Your task to perform on an android device: add a contact Image 0: 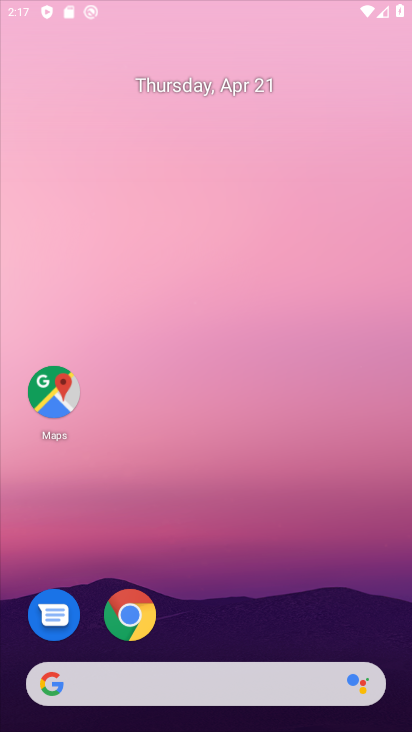
Step 0: click (292, 51)
Your task to perform on an android device: add a contact Image 1: 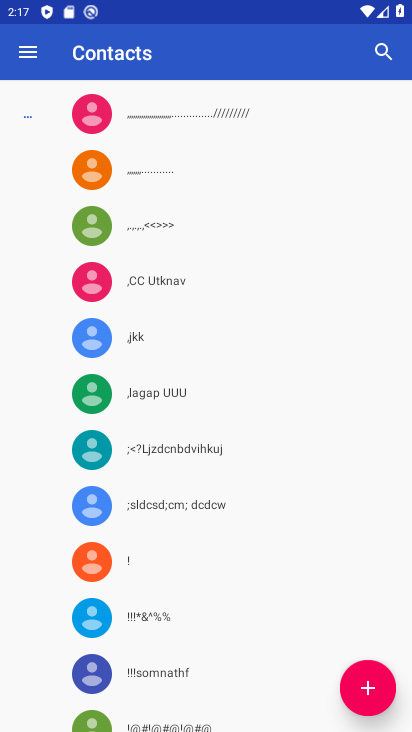
Step 1: press back button
Your task to perform on an android device: add a contact Image 2: 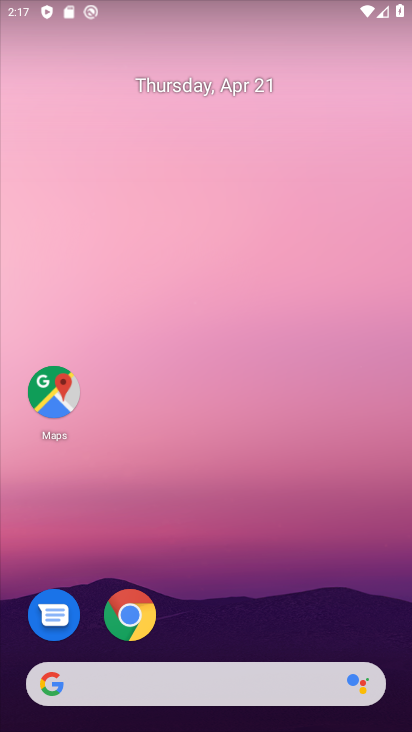
Step 2: drag from (235, 486) to (268, 3)
Your task to perform on an android device: add a contact Image 3: 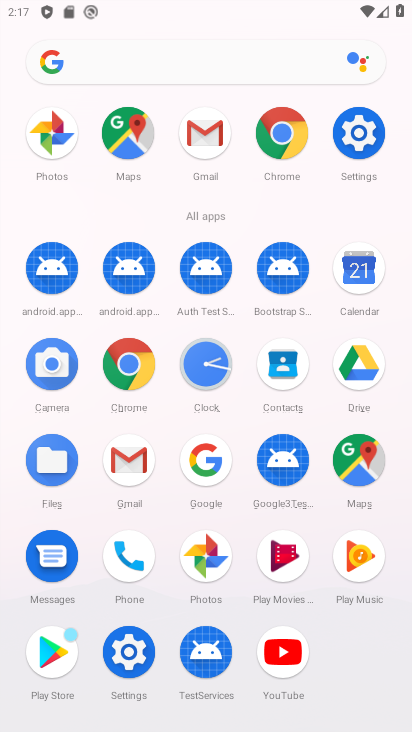
Step 3: click (287, 366)
Your task to perform on an android device: add a contact Image 4: 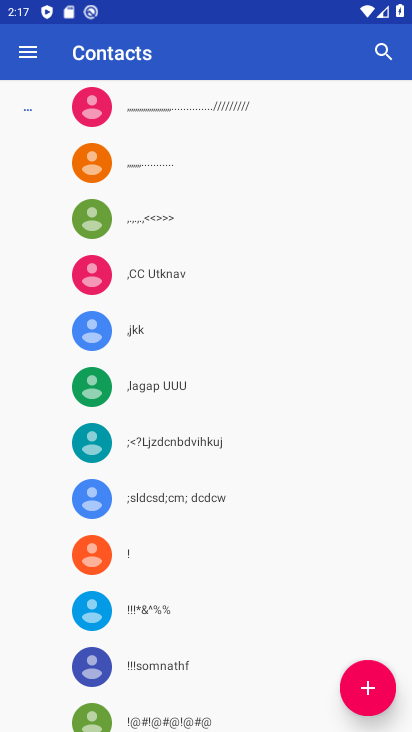
Step 4: click (366, 685)
Your task to perform on an android device: add a contact Image 5: 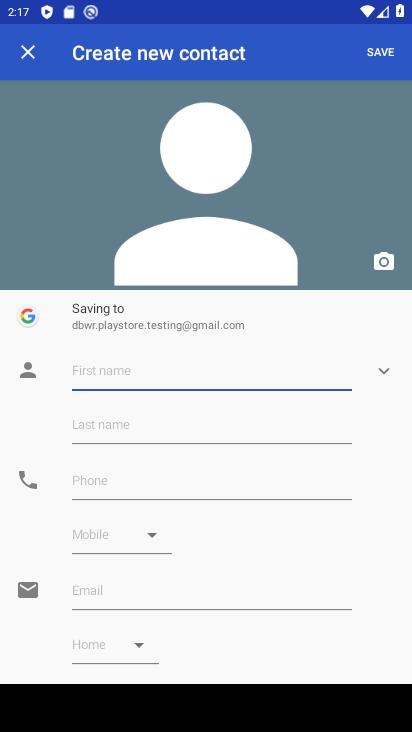
Step 5: click (88, 368)
Your task to perform on an android device: add a contact Image 6: 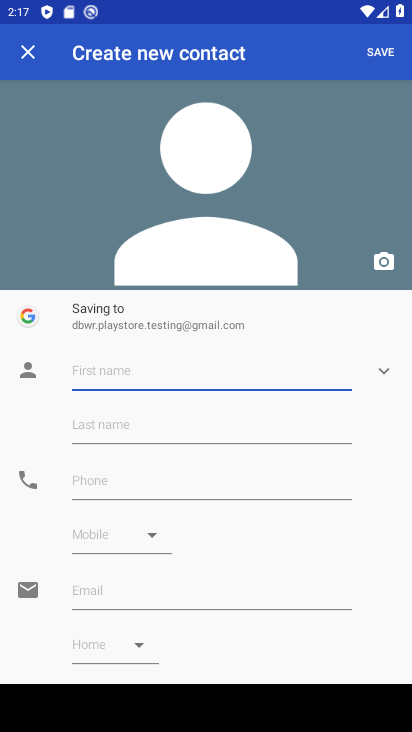
Step 6: type "vfb"
Your task to perform on an android device: add a contact Image 7: 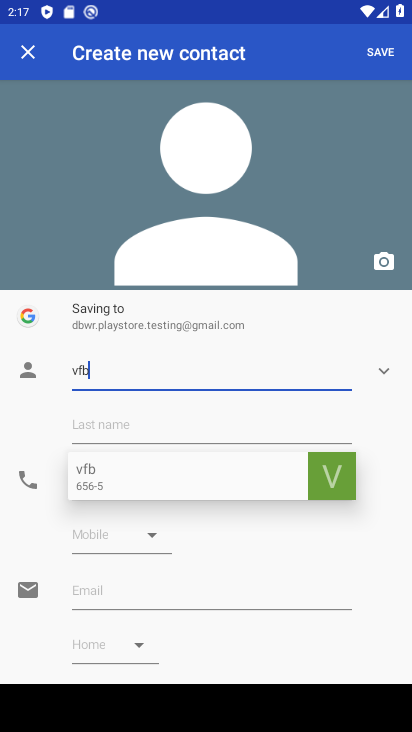
Step 7: click (92, 487)
Your task to perform on an android device: add a contact Image 8: 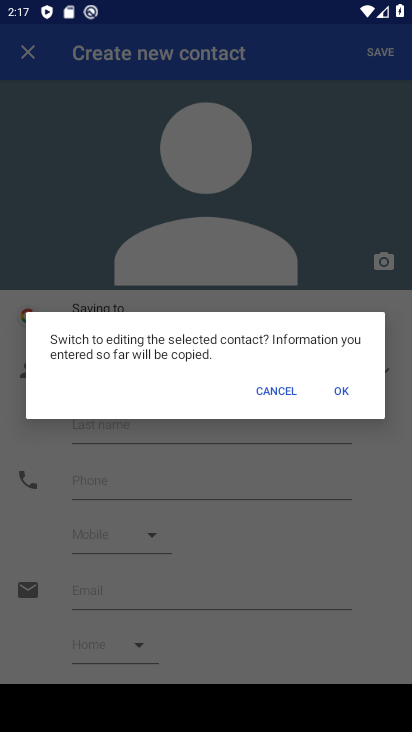
Step 8: click (341, 377)
Your task to perform on an android device: add a contact Image 9: 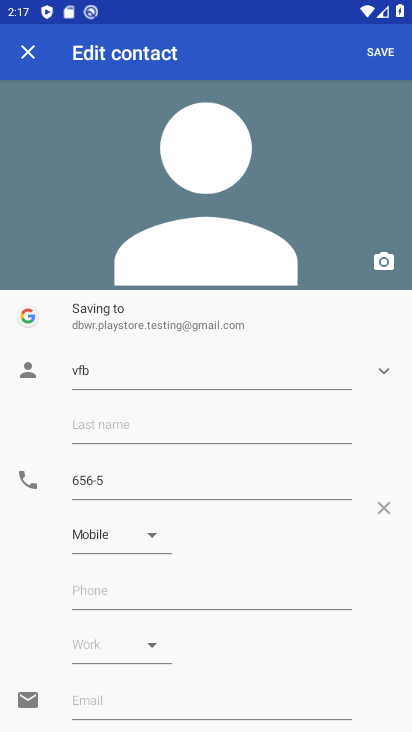
Step 9: click (390, 45)
Your task to perform on an android device: add a contact Image 10: 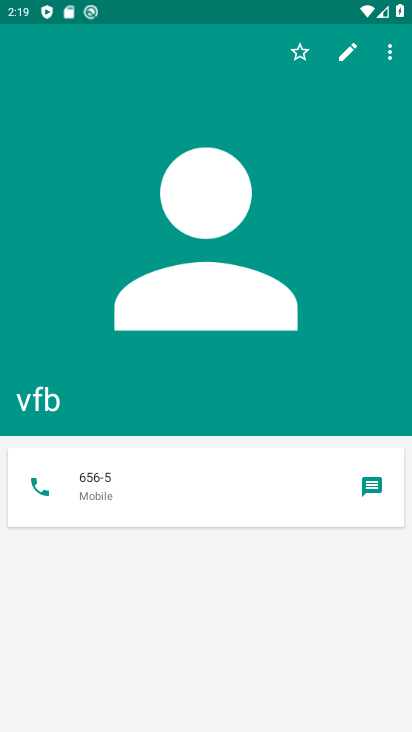
Step 10: task complete